Your task to perform on an android device: Search for Mexican restaurants on Maps Image 0: 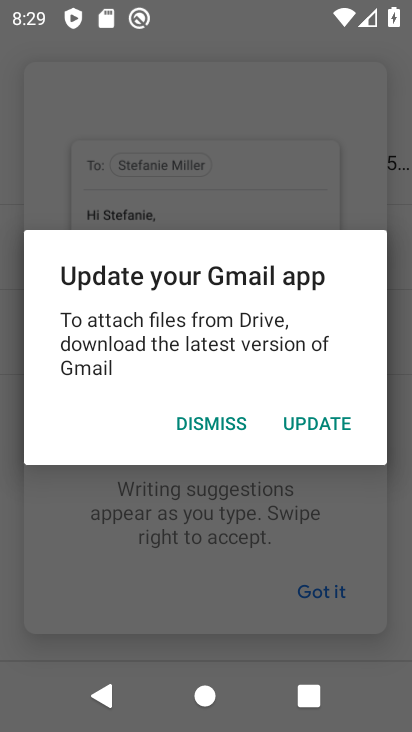
Step 0: click (209, 412)
Your task to perform on an android device: Search for Mexican restaurants on Maps Image 1: 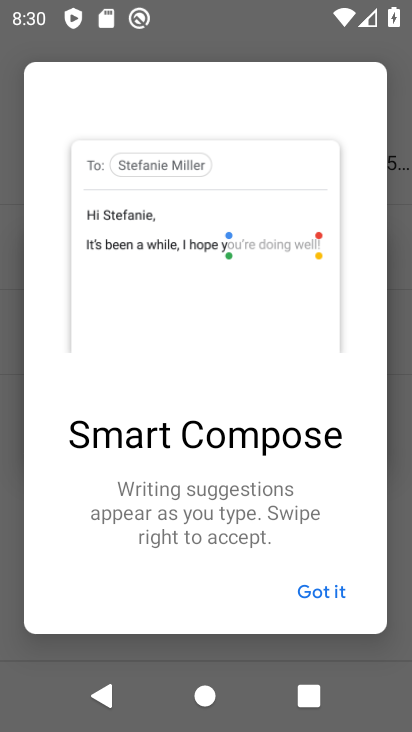
Step 1: press back button
Your task to perform on an android device: Search for Mexican restaurants on Maps Image 2: 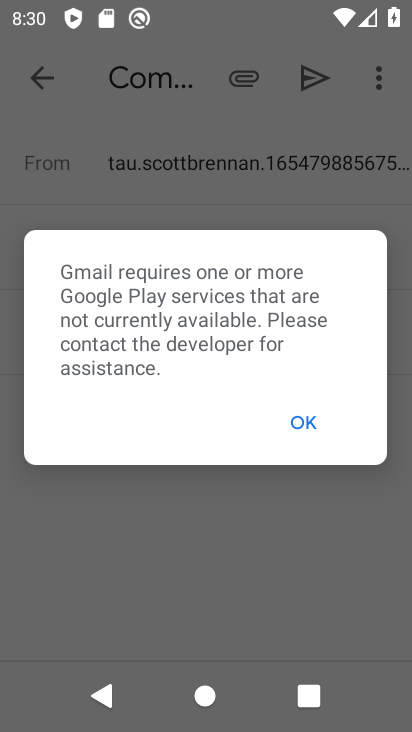
Step 2: press home button
Your task to perform on an android device: Search for Mexican restaurants on Maps Image 3: 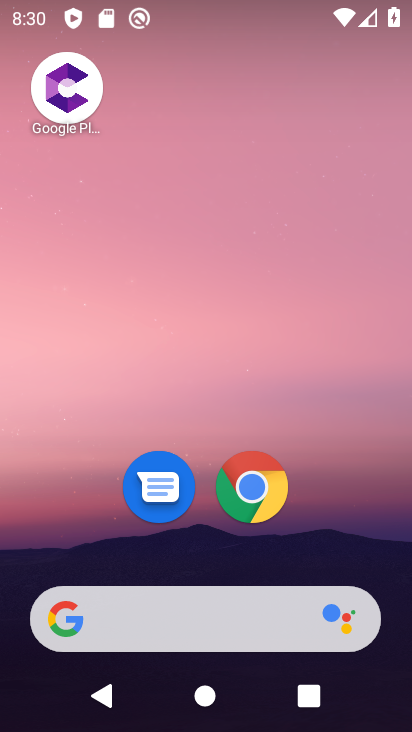
Step 3: drag from (219, 577) to (66, 715)
Your task to perform on an android device: Search for Mexican restaurants on Maps Image 4: 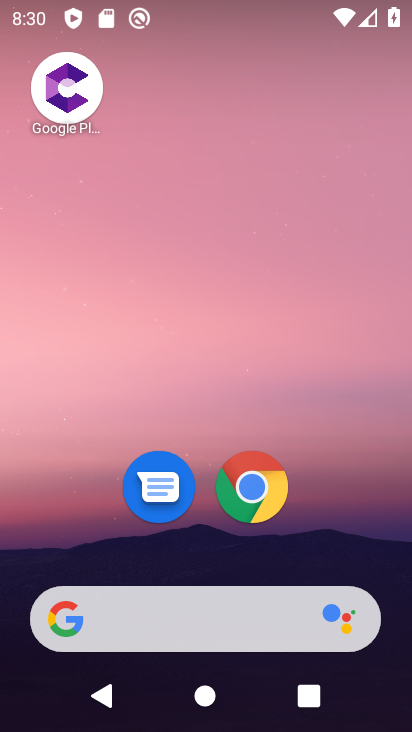
Step 4: drag from (221, 582) to (309, 34)
Your task to perform on an android device: Search for Mexican restaurants on Maps Image 5: 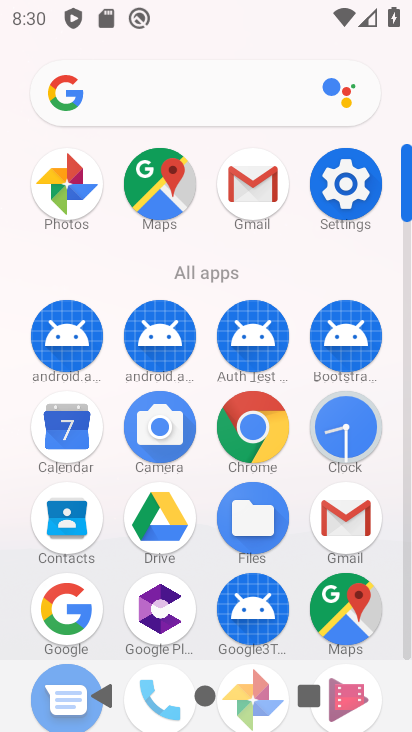
Step 5: click (346, 631)
Your task to perform on an android device: Search for Mexican restaurants on Maps Image 6: 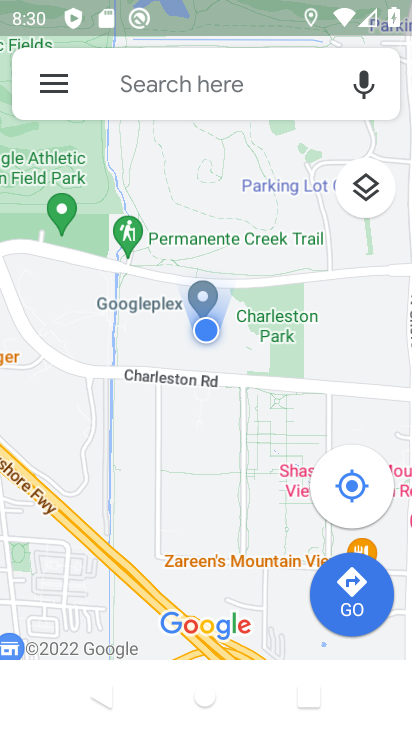
Step 6: click (162, 84)
Your task to perform on an android device: Search for Mexican restaurants on Maps Image 7: 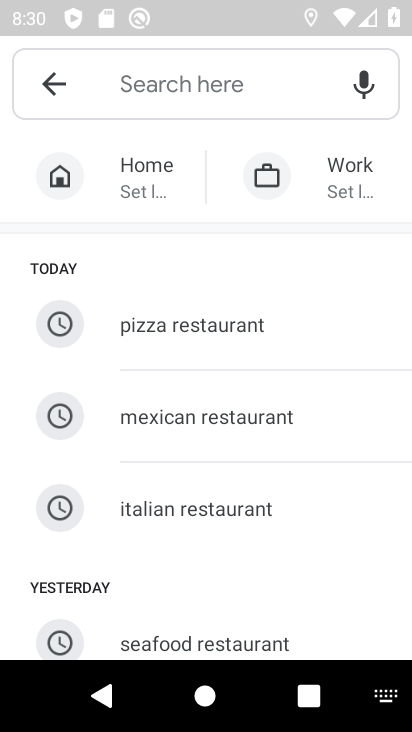
Step 7: click (189, 417)
Your task to perform on an android device: Search for Mexican restaurants on Maps Image 8: 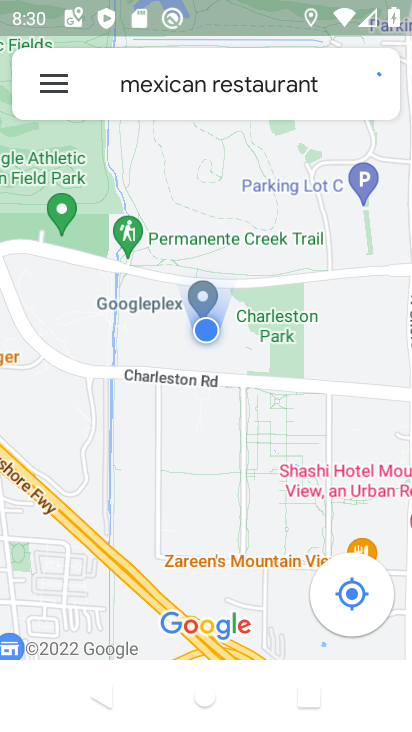
Step 8: task complete